Your task to perform on an android device: turn on priority inbox in the gmail app Image 0: 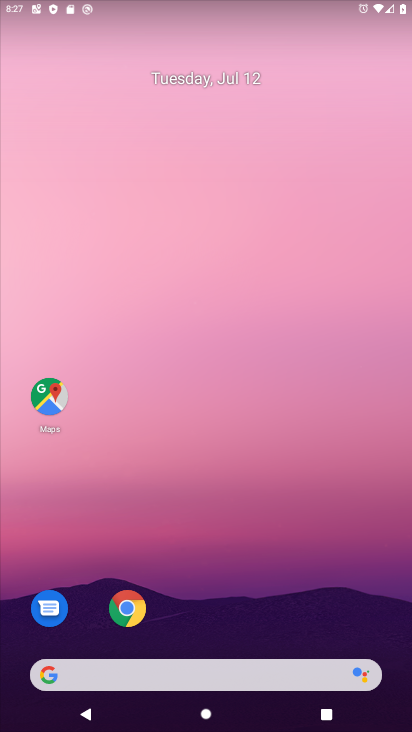
Step 0: drag from (273, 539) to (273, 71)
Your task to perform on an android device: turn on priority inbox in the gmail app Image 1: 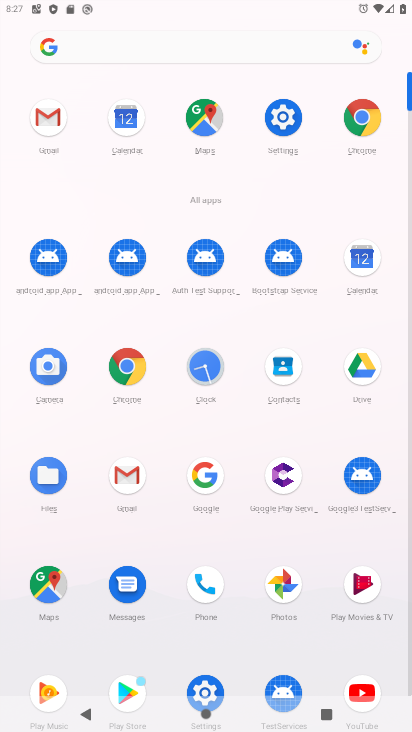
Step 1: click (49, 110)
Your task to perform on an android device: turn on priority inbox in the gmail app Image 2: 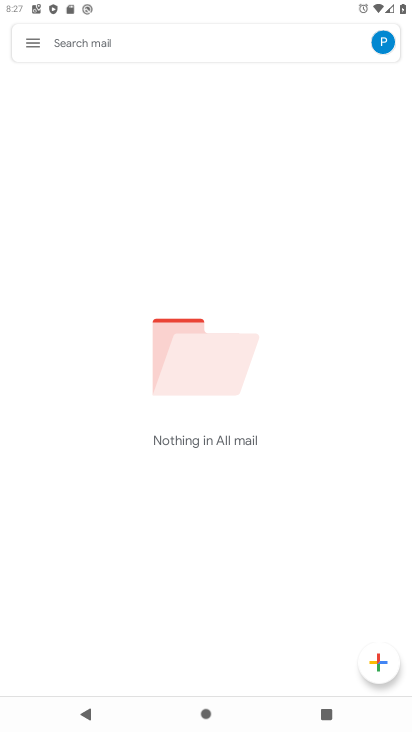
Step 2: click (28, 42)
Your task to perform on an android device: turn on priority inbox in the gmail app Image 3: 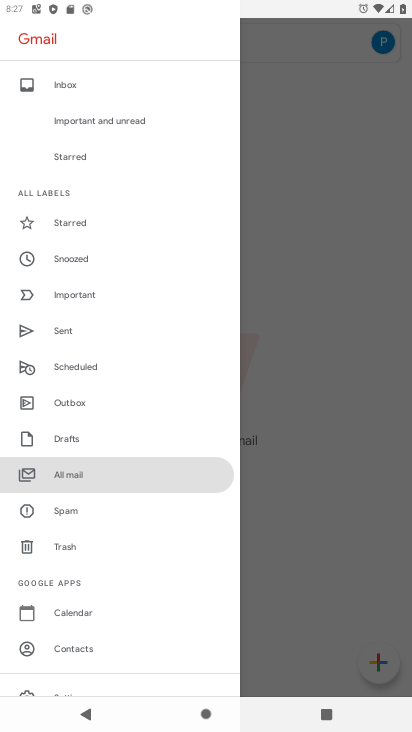
Step 3: click (76, 688)
Your task to perform on an android device: turn on priority inbox in the gmail app Image 4: 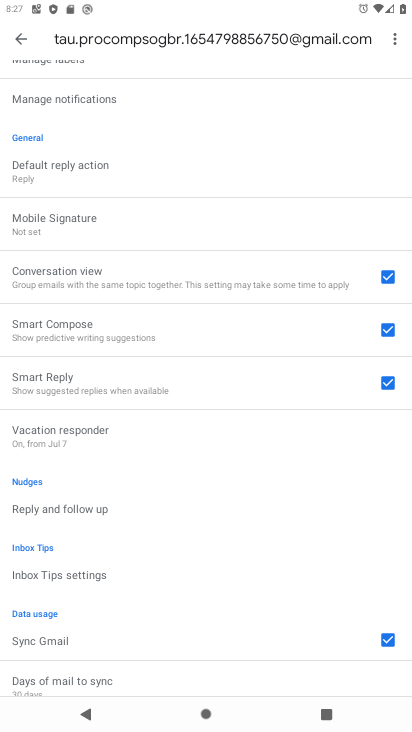
Step 4: drag from (108, 200) to (107, 498)
Your task to perform on an android device: turn on priority inbox in the gmail app Image 5: 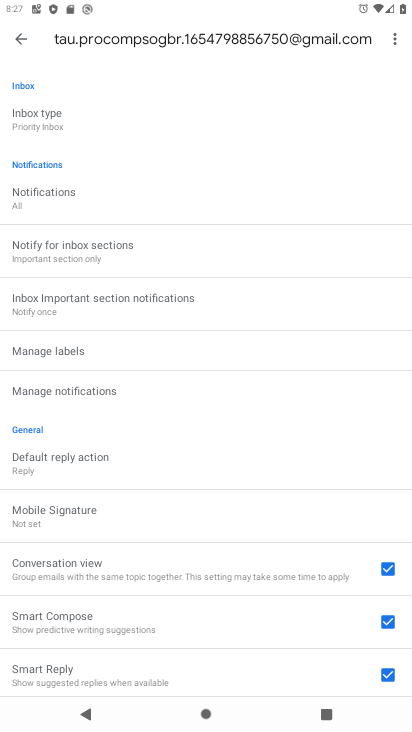
Step 5: click (62, 122)
Your task to perform on an android device: turn on priority inbox in the gmail app Image 6: 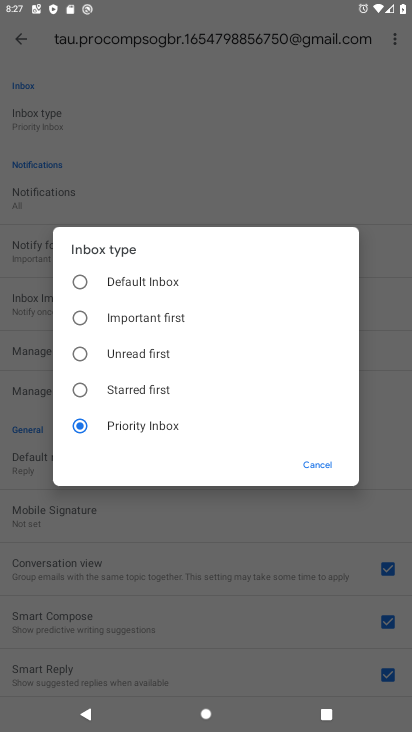
Step 6: click (107, 433)
Your task to perform on an android device: turn on priority inbox in the gmail app Image 7: 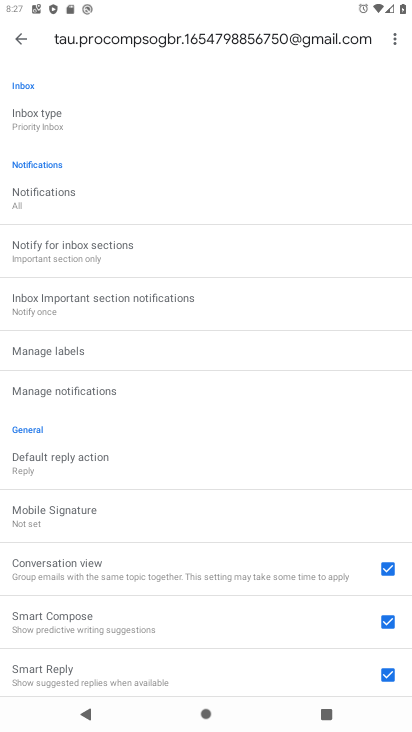
Step 7: task complete